Your task to perform on an android device: toggle pop-ups in chrome Image 0: 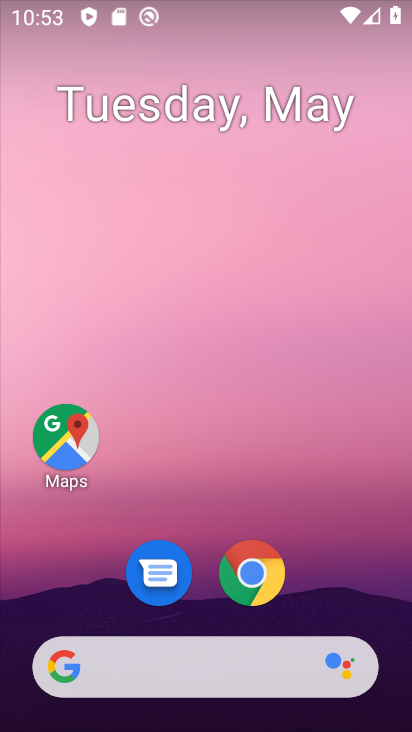
Step 0: click (255, 568)
Your task to perform on an android device: toggle pop-ups in chrome Image 1: 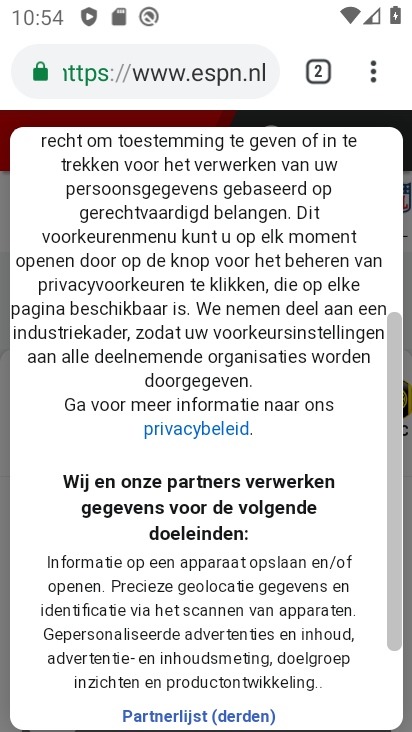
Step 1: click (378, 69)
Your task to perform on an android device: toggle pop-ups in chrome Image 2: 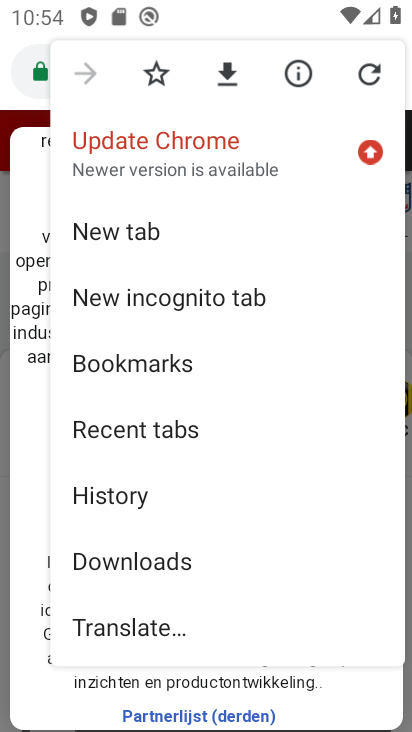
Step 2: drag from (167, 636) to (167, 236)
Your task to perform on an android device: toggle pop-ups in chrome Image 3: 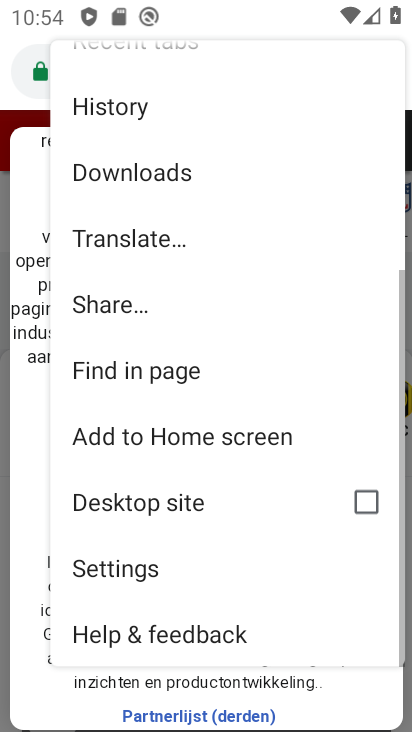
Step 3: click (124, 561)
Your task to perform on an android device: toggle pop-ups in chrome Image 4: 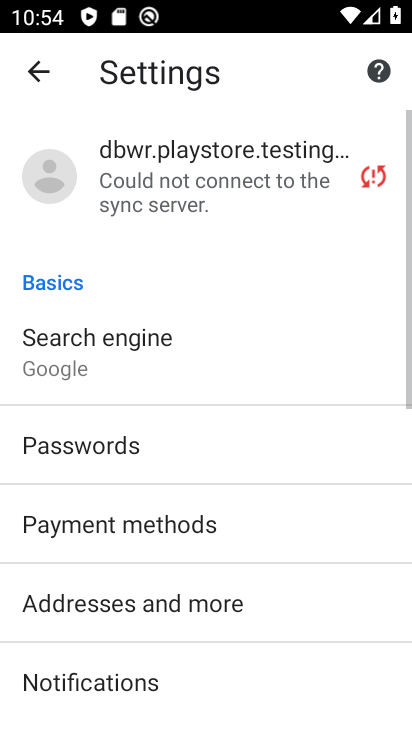
Step 4: drag from (155, 699) to (222, 284)
Your task to perform on an android device: toggle pop-ups in chrome Image 5: 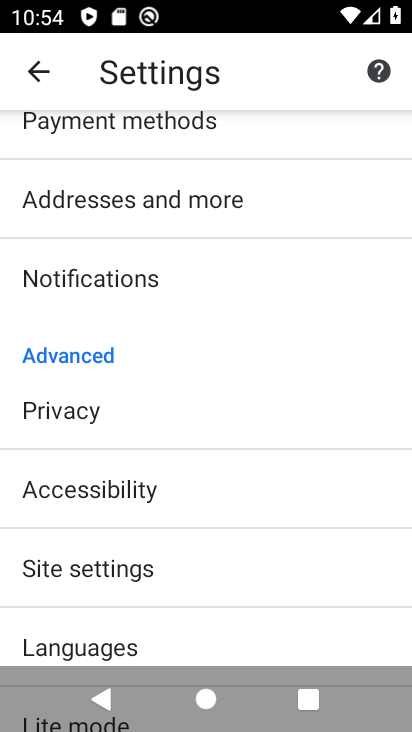
Step 5: click (90, 567)
Your task to perform on an android device: toggle pop-ups in chrome Image 6: 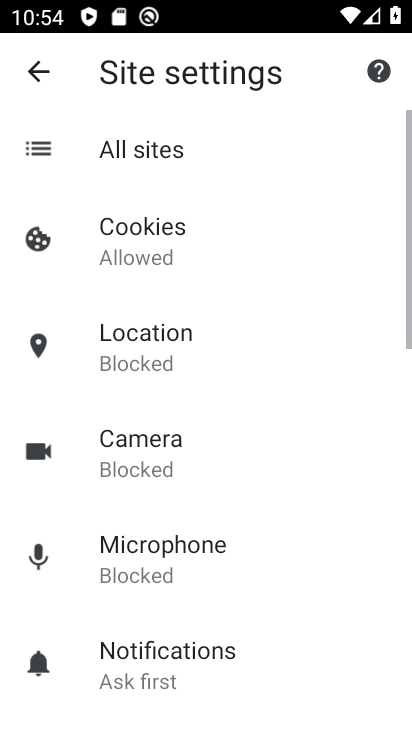
Step 6: drag from (171, 692) to (226, 289)
Your task to perform on an android device: toggle pop-ups in chrome Image 7: 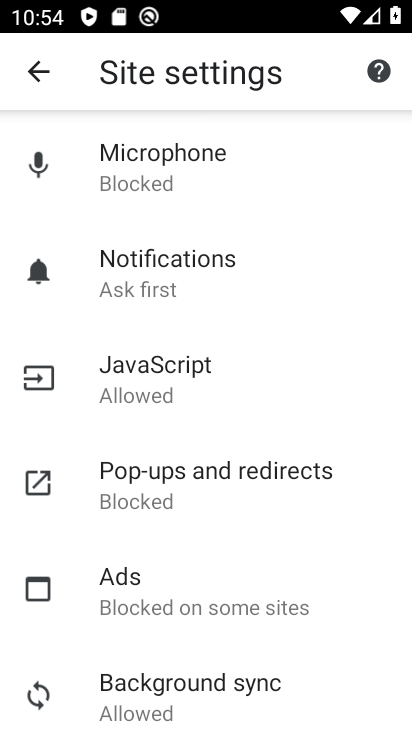
Step 7: click (198, 485)
Your task to perform on an android device: toggle pop-ups in chrome Image 8: 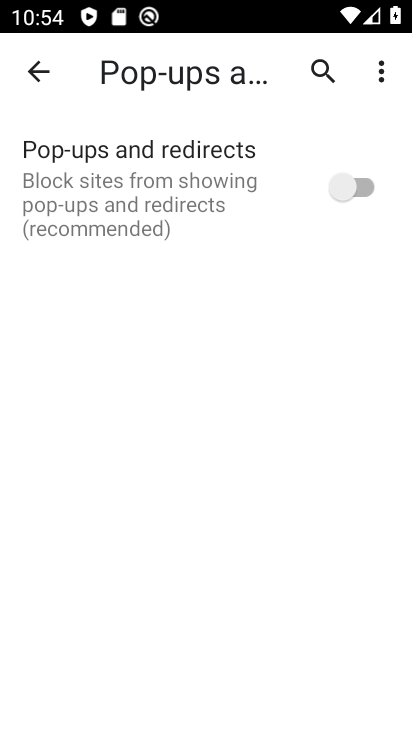
Step 8: click (371, 186)
Your task to perform on an android device: toggle pop-ups in chrome Image 9: 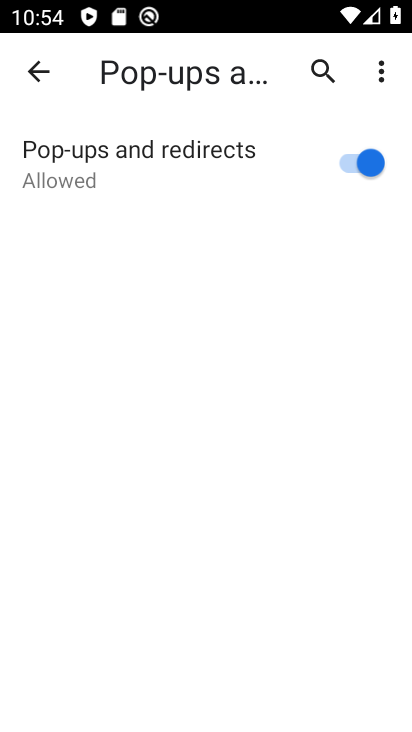
Step 9: task complete